Your task to perform on an android device: choose inbox layout in the gmail app Image 0: 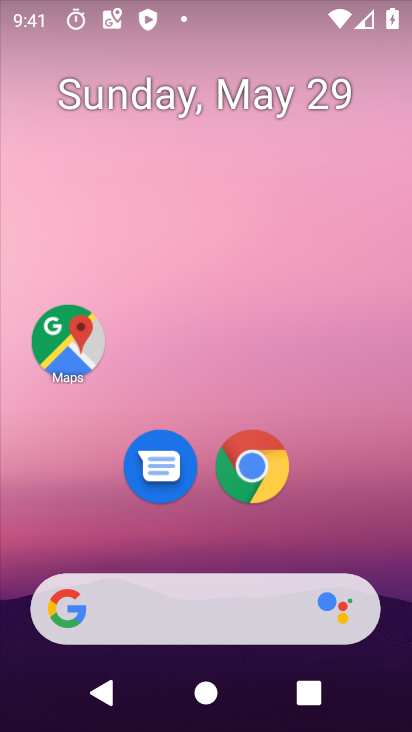
Step 0: drag from (211, 555) to (210, 245)
Your task to perform on an android device: choose inbox layout in the gmail app Image 1: 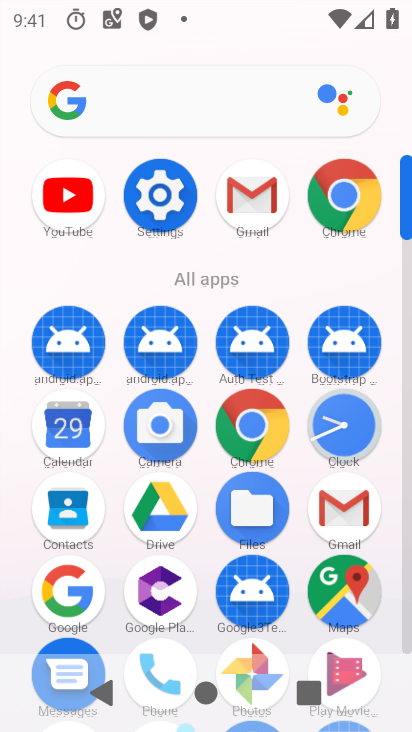
Step 1: click (333, 494)
Your task to perform on an android device: choose inbox layout in the gmail app Image 2: 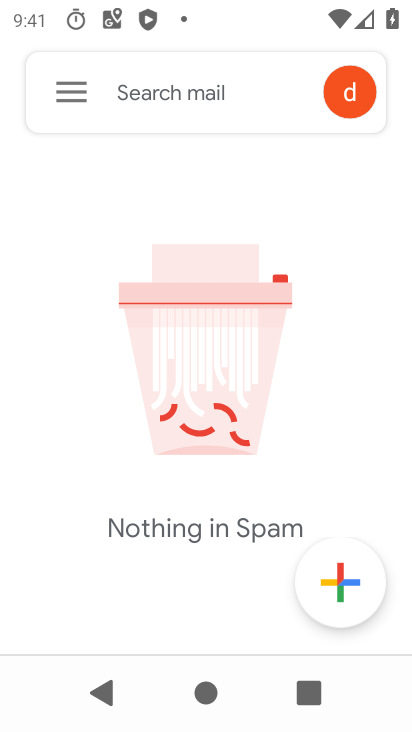
Step 2: click (79, 100)
Your task to perform on an android device: choose inbox layout in the gmail app Image 3: 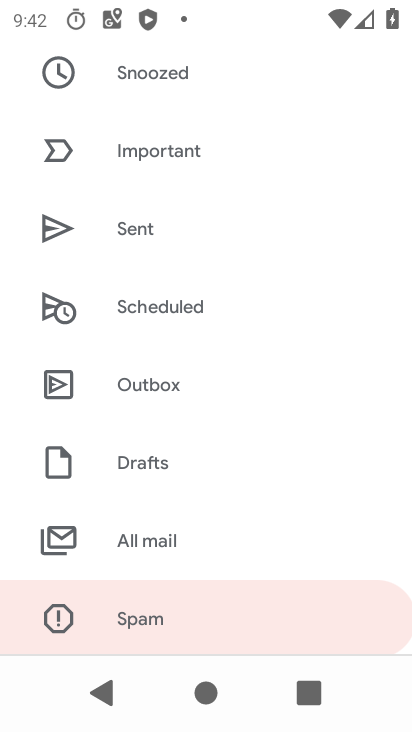
Step 3: drag from (208, 529) to (242, 317)
Your task to perform on an android device: choose inbox layout in the gmail app Image 4: 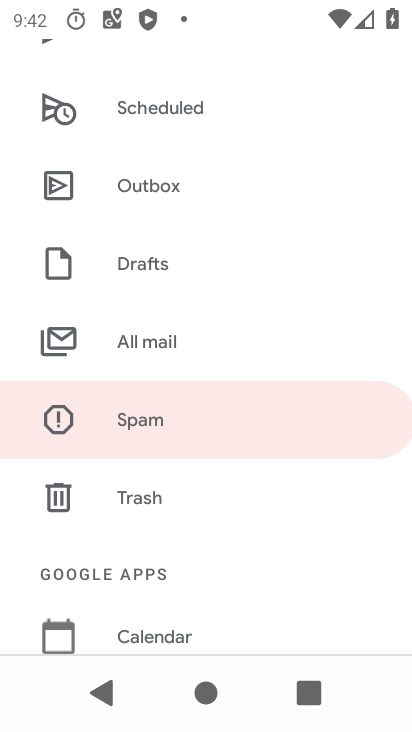
Step 4: drag from (188, 542) to (197, 342)
Your task to perform on an android device: choose inbox layout in the gmail app Image 5: 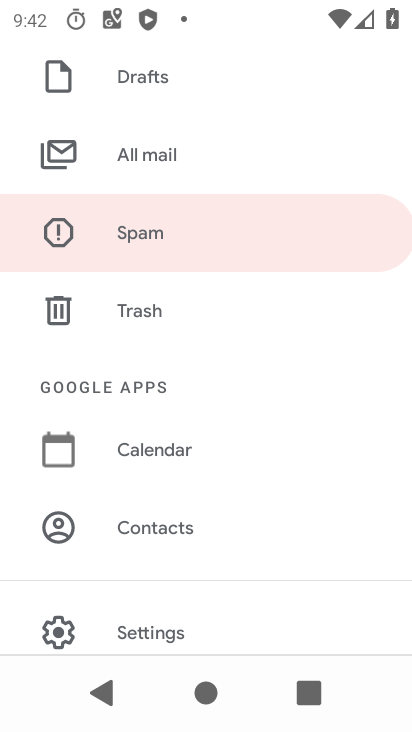
Step 5: click (181, 623)
Your task to perform on an android device: choose inbox layout in the gmail app Image 6: 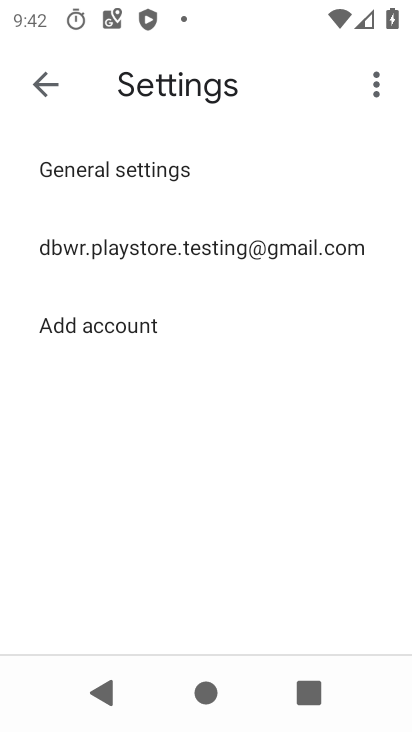
Step 6: click (109, 235)
Your task to perform on an android device: choose inbox layout in the gmail app Image 7: 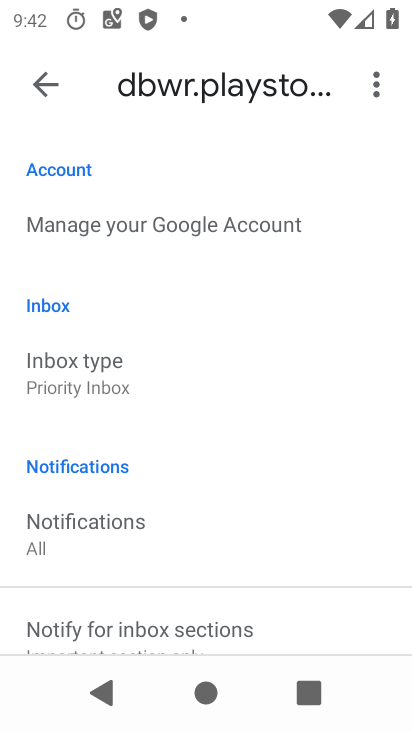
Step 7: click (124, 370)
Your task to perform on an android device: choose inbox layout in the gmail app Image 8: 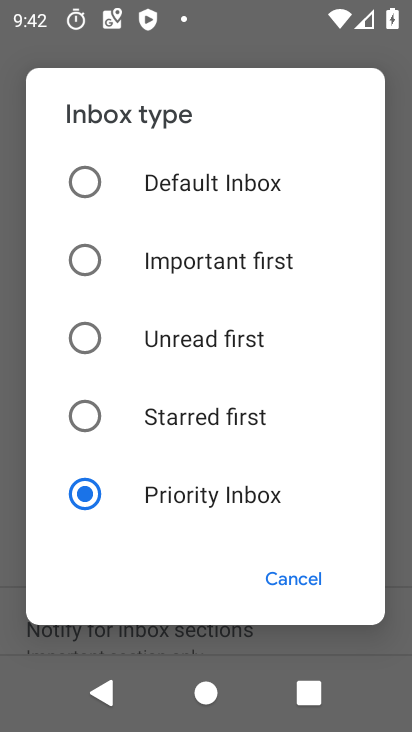
Step 8: click (146, 201)
Your task to perform on an android device: choose inbox layout in the gmail app Image 9: 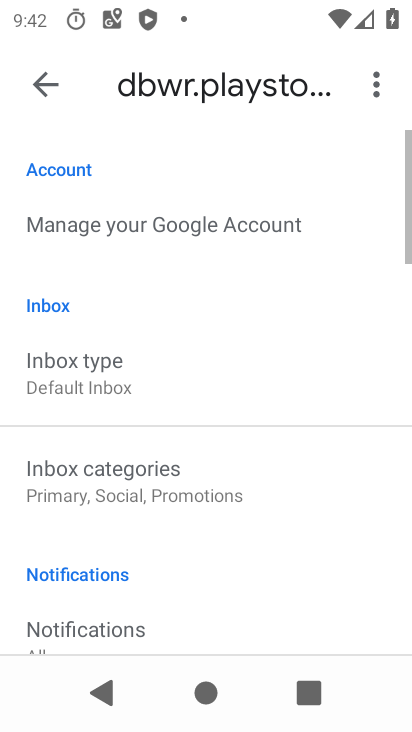
Step 9: task complete